Your task to perform on an android device: Open Yahoo.com Image 0: 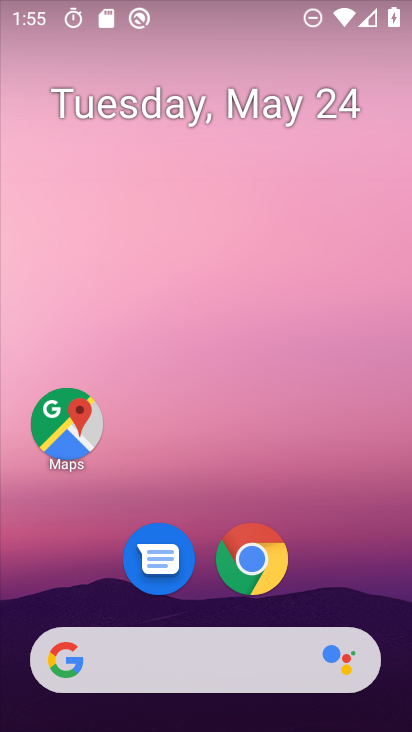
Step 0: click (263, 565)
Your task to perform on an android device: Open Yahoo.com Image 1: 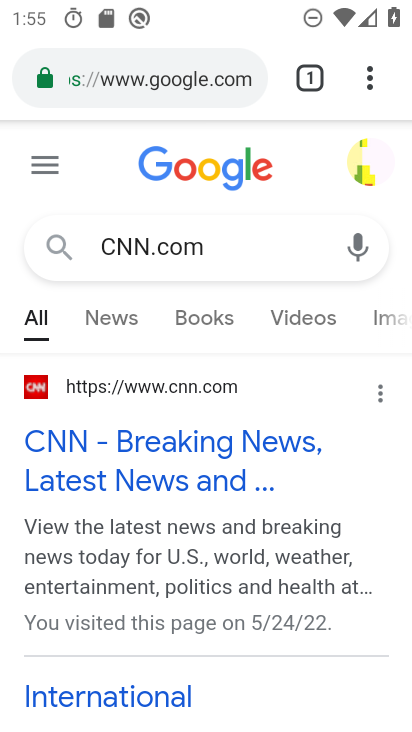
Step 1: click (375, 84)
Your task to perform on an android device: Open Yahoo.com Image 2: 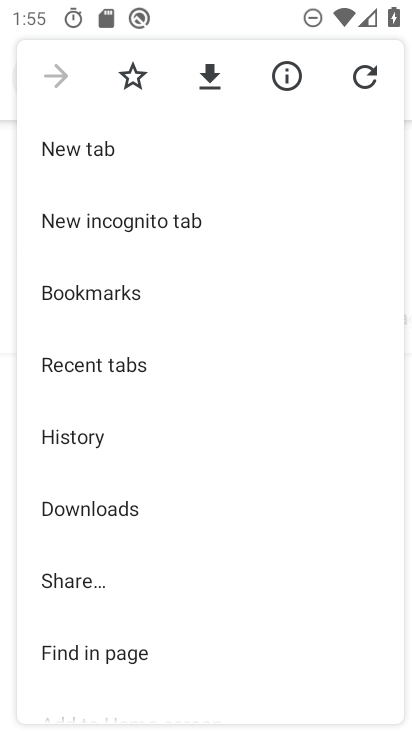
Step 2: press back button
Your task to perform on an android device: Open Yahoo.com Image 3: 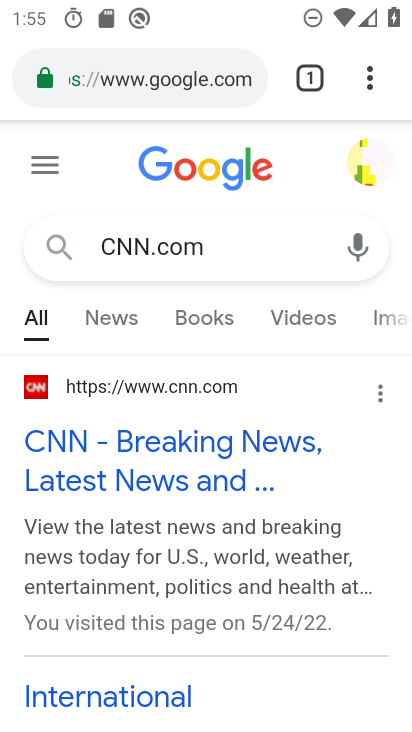
Step 3: click (253, 75)
Your task to perform on an android device: Open Yahoo.com Image 4: 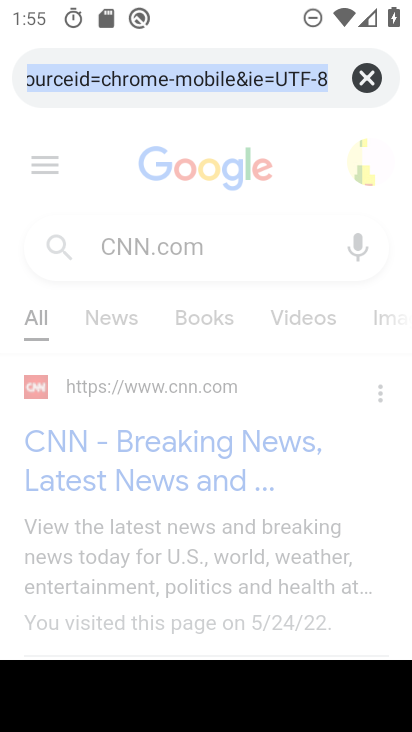
Step 4: click (363, 77)
Your task to perform on an android device: Open Yahoo.com Image 5: 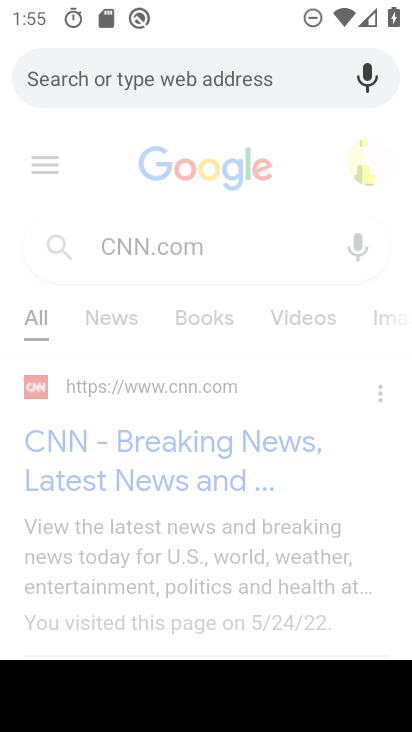
Step 5: type "Yahoo.com"
Your task to perform on an android device: Open Yahoo.com Image 6: 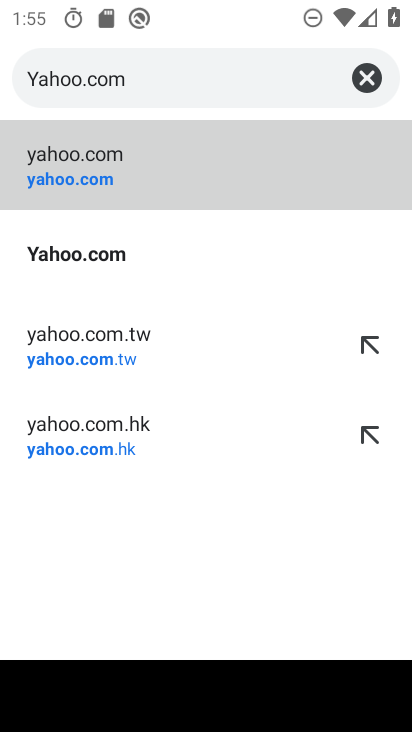
Step 6: click (96, 257)
Your task to perform on an android device: Open Yahoo.com Image 7: 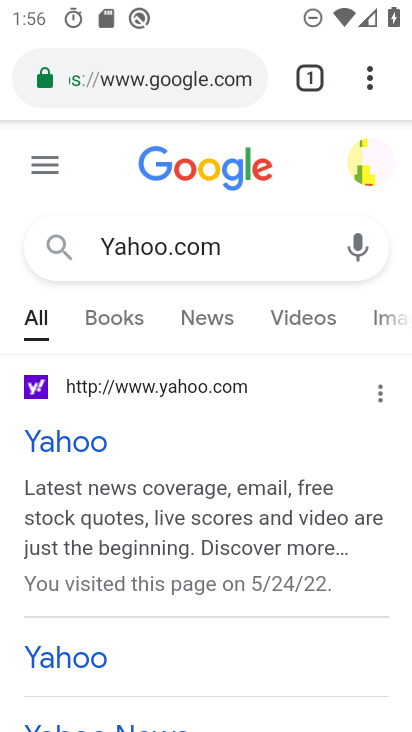
Step 7: task complete